Your task to perform on an android device: Open Google Chrome Image 0: 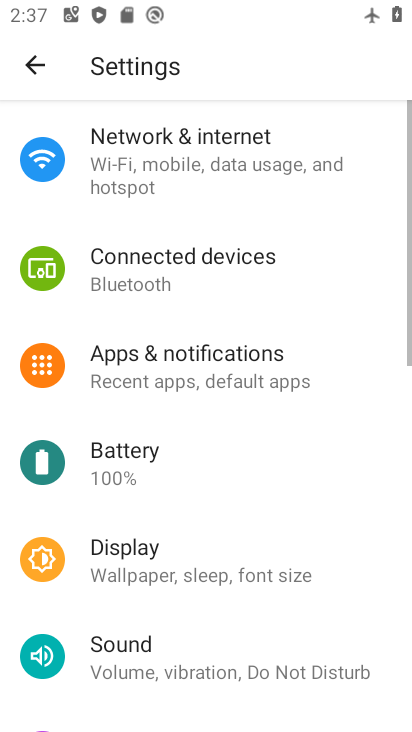
Step 0: press home button
Your task to perform on an android device: Open Google Chrome Image 1: 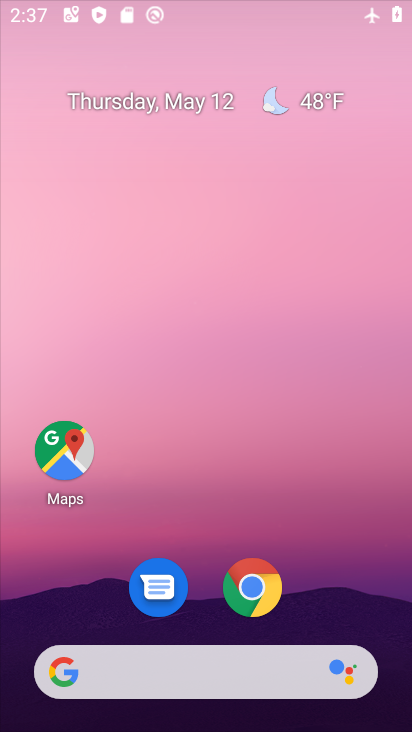
Step 1: drag from (204, 643) to (235, 103)
Your task to perform on an android device: Open Google Chrome Image 2: 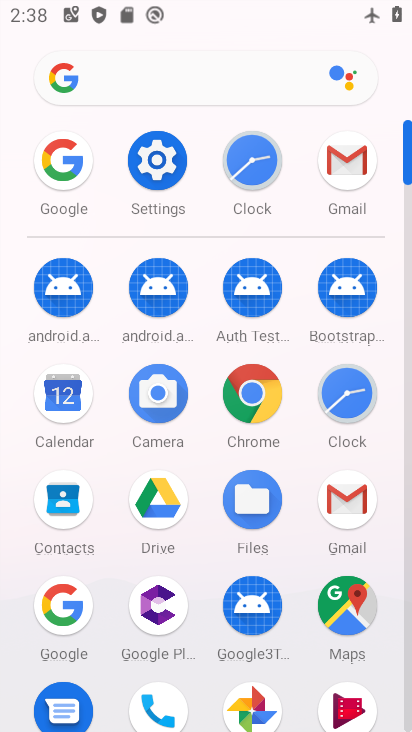
Step 2: click (252, 419)
Your task to perform on an android device: Open Google Chrome Image 3: 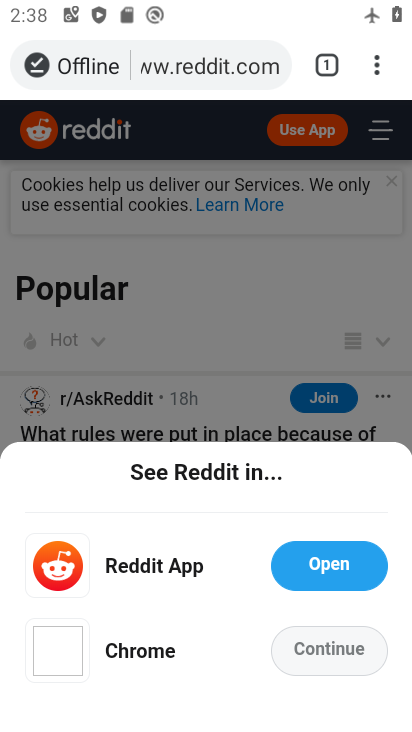
Step 3: click (273, 304)
Your task to perform on an android device: Open Google Chrome Image 4: 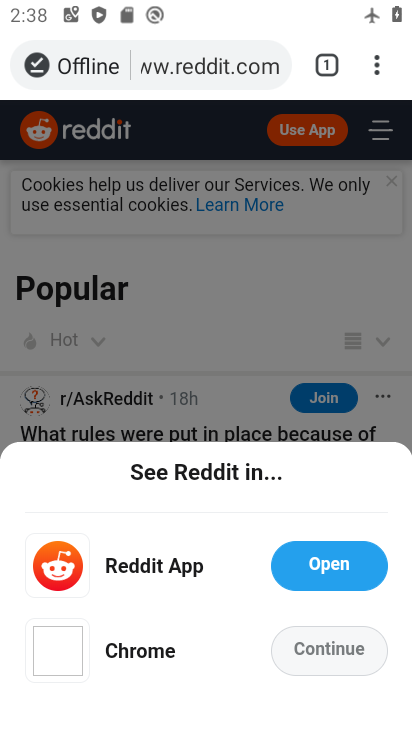
Step 4: task complete